Your task to perform on an android device: turn off picture-in-picture Image 0: 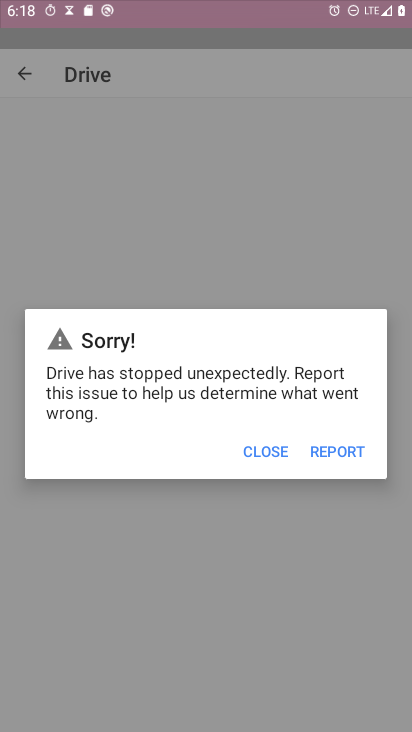
Step 0: click (157, 17)
Your task to perform on an android device: turn off picture-in-picture Image 1: 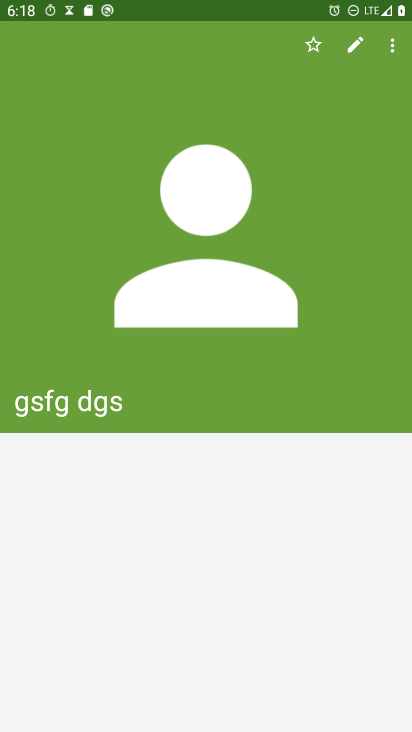
Step 1: press home button
Your task to perform on an android device: turn off picture-in-picture Image 2: 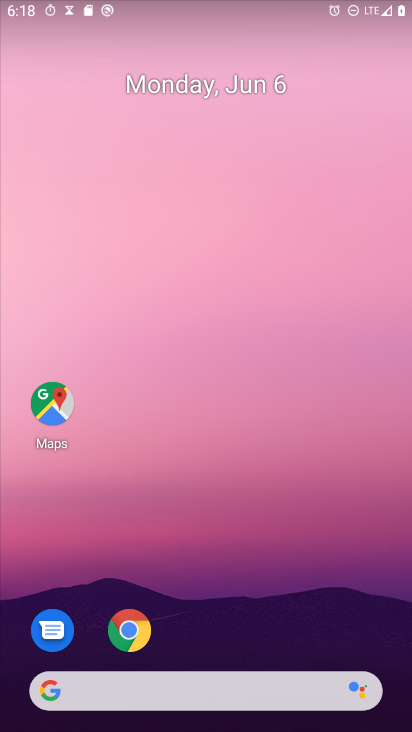
Step 2: drag from (300, 630) to (177, 7)
Your task to perform on an android device: turn off picture-in-picture Image 3: 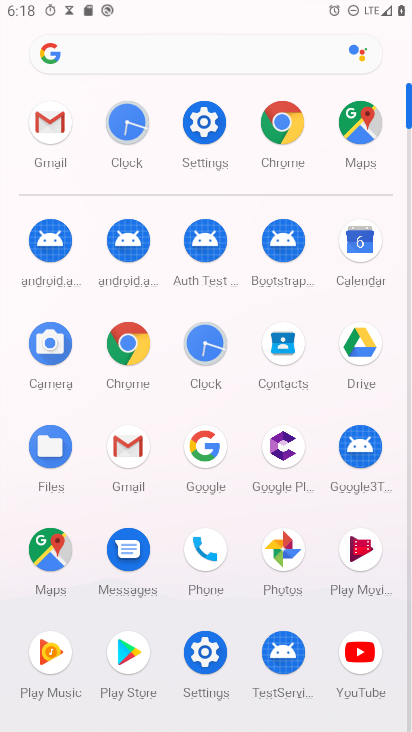
Step 3: click (199, 116)
Your task to perform on an android device: turn off picture-in-picture Image 4: 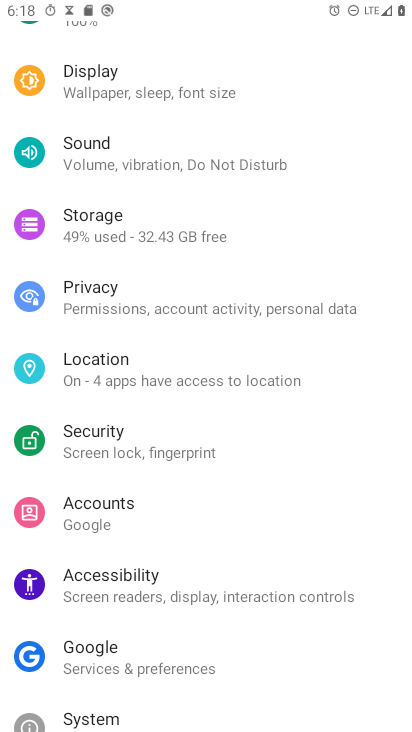
Step 4: drag from (231, 166) to (232, 535)
Your task to perform on an android device: turn off picture-in-picture Image 5: 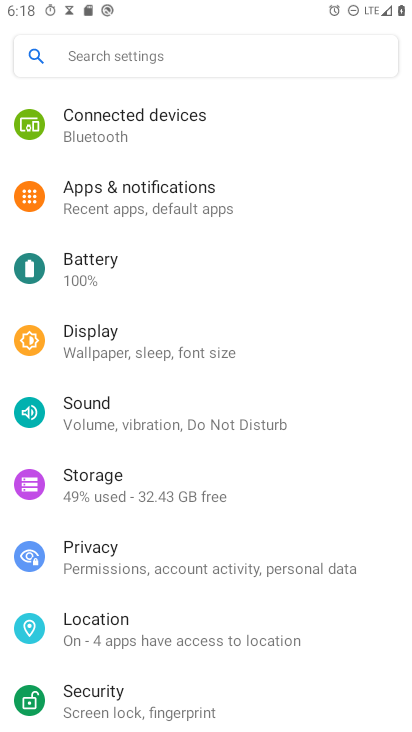
Step 5: click (206, 211)
Your task to perform on an android device: turn off picture-in-picture Image 6: 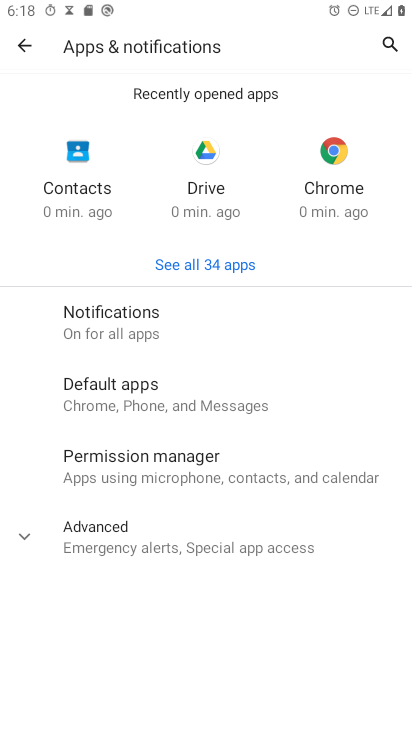
Step 6: click (255, 542)
Your task to perform on an android device: turn off picture-in-picture Image 7: 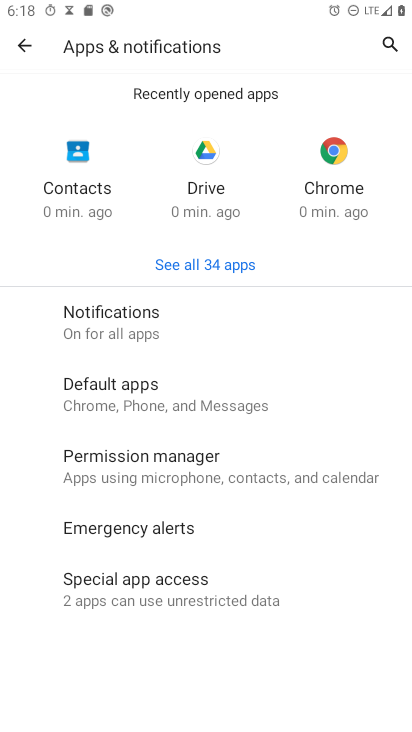
Step 7: click (233, 600)
Your task to perform on an android device: turn off picture-in-picture Image 8: 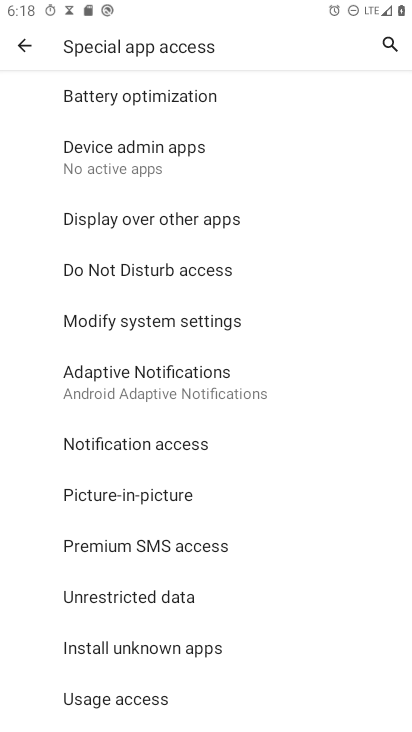
Step 8: click (206, 505)
Your task to perform on an android device: turn off picture-in-picture Image 9: 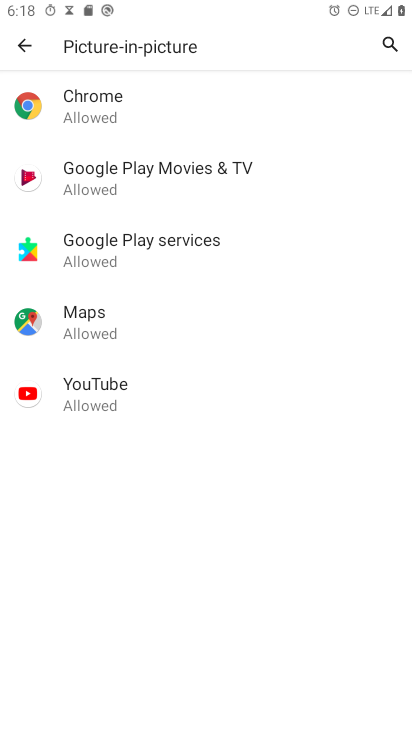
Step 9: click (242, 319)
Your task to perform on an android device: turn off picture-in-picture Image 10: 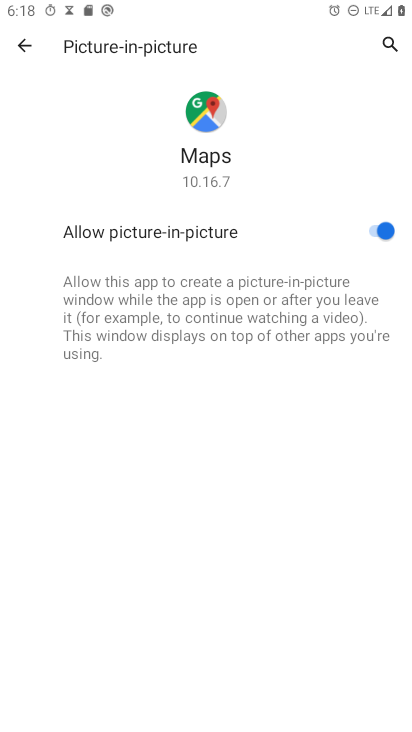
Step 10: click (378, 215)
Your task to perform on an android device: turn off picture-in-picture Image 11: 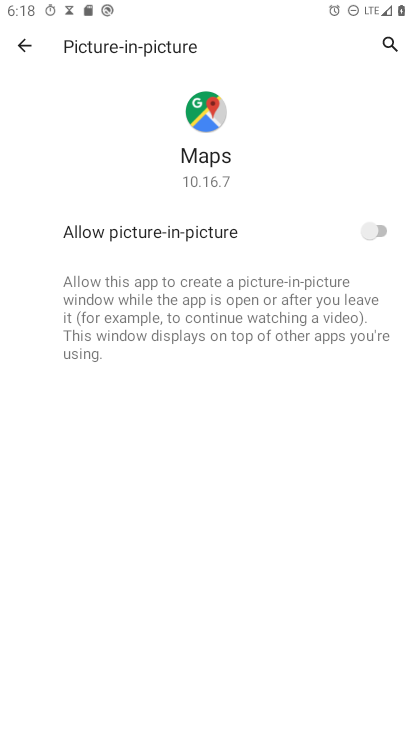
Step 11: task complete